Your task to perform on an android device: Open ESPN.com Image 0: 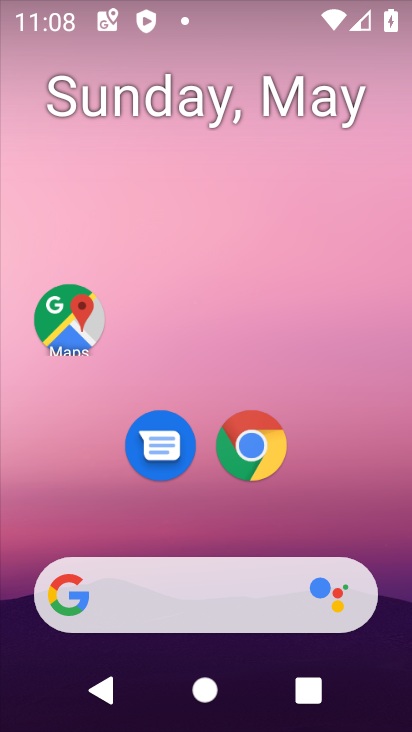
Step 0: click (185, 608)
Your task to perform on an android device: Open ESPN.com Image 1: 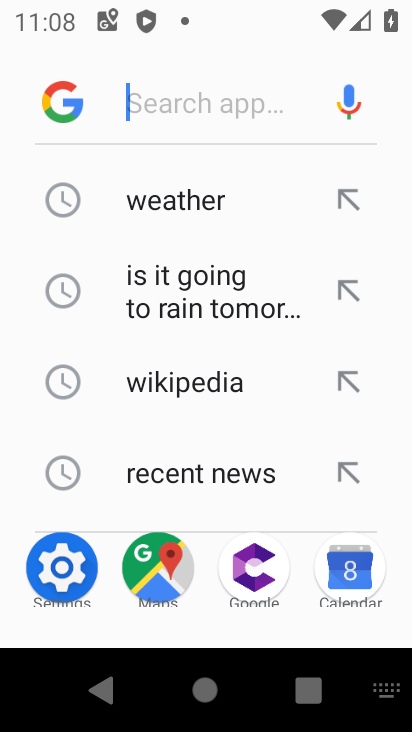
Step 1: type "ESPN.com"
Your task to perform on an android device: Open ESPN.com Image 2: 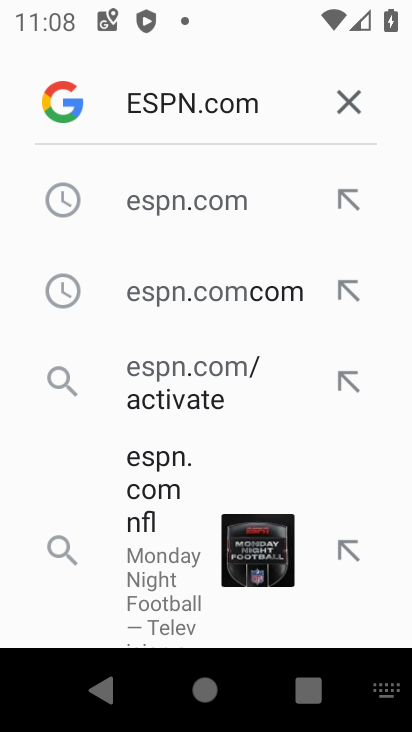
Step 2: click (243, 215)
Your task to perform on an android device: Open ESPN.com Image 3: 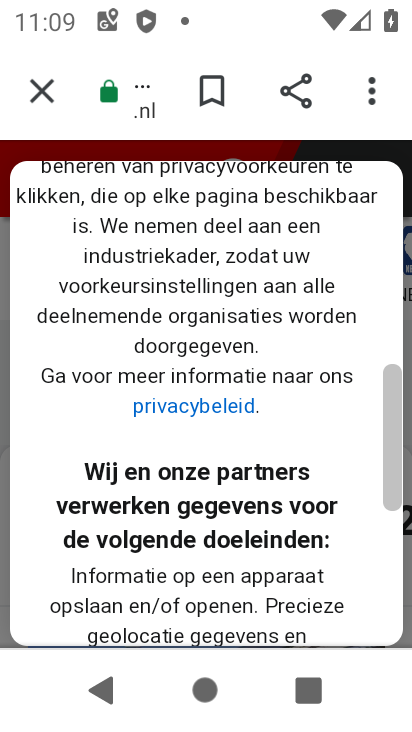
Step 3: task complete